Your task to perform on an android device: toggle notification dots Image 0: 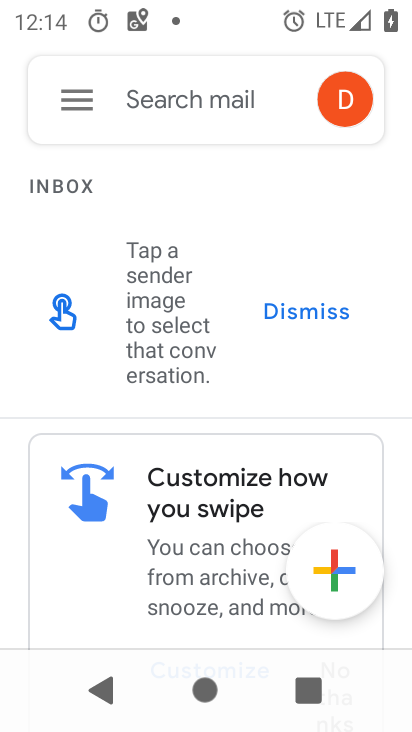
Step 0: press home button
Your task to perform on an android device: toggle notification dots Image 1: 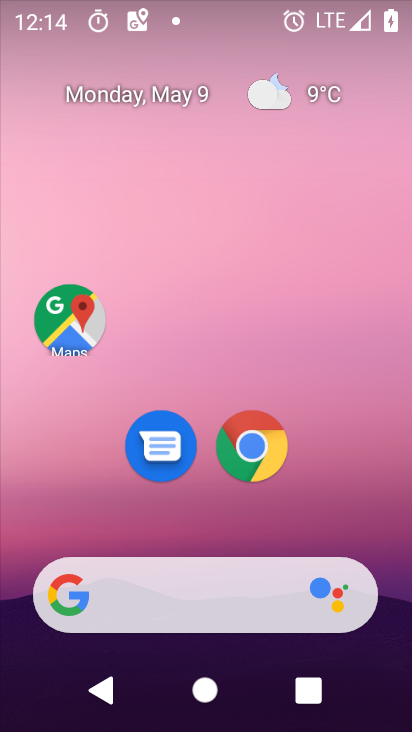
Step 1: drag from (376, 509) to (375, 3)
Your task to perform on an android device: toggle notification dots Image 2: 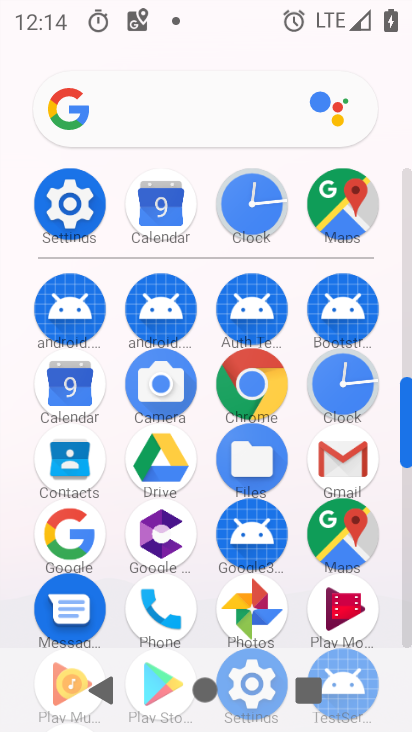
Step 2: click (76, 218)
Your task to perform on an android device: toggle notification dots Image 3: 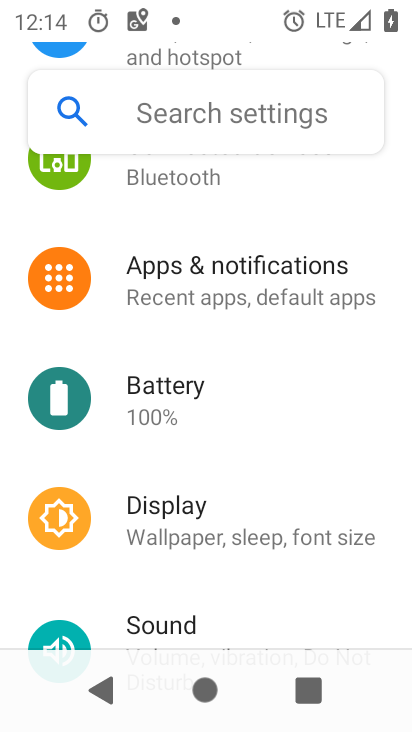
Step 3: click (254, 295)
Your task to perform on an android device: toggle notification dots Image 4: 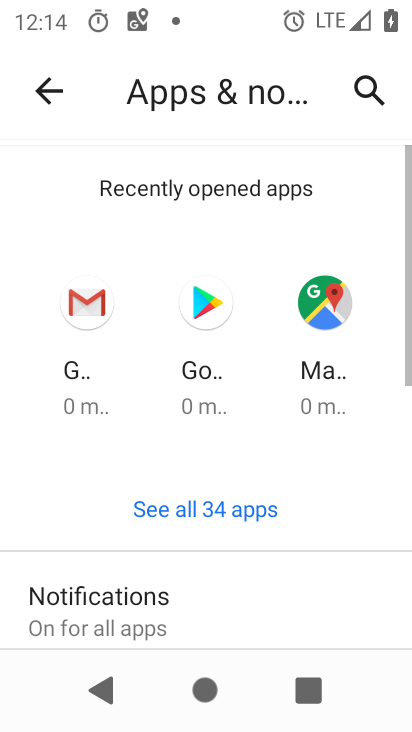
Step 4: drag from (239, 542) to (242, 164)
Your task to perform on an android device: toggle notification dots Image 5: 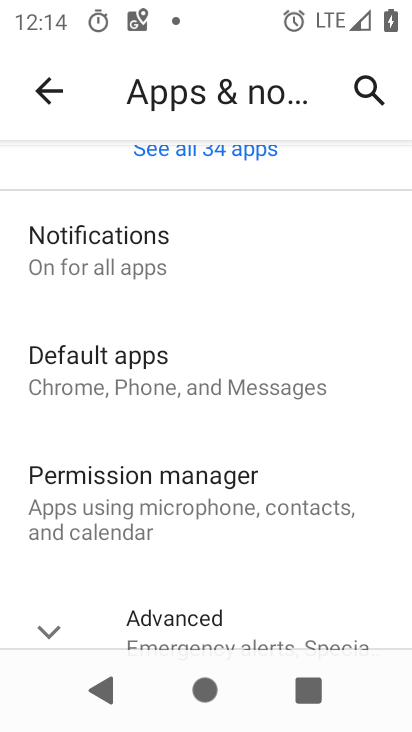
Step 5: click (107, 260)
Your task to perform on an android device: toggle notification dots Image 6: 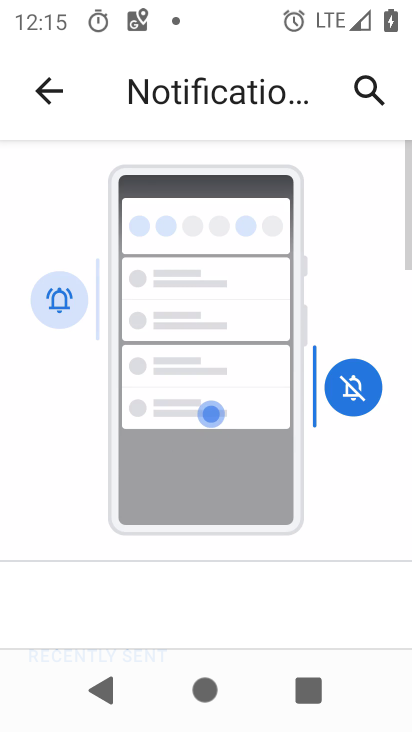
Step 6: drag from (297, 531) to (278, 49)
Your task to perform on an android device: toggle notification dots Image 7: 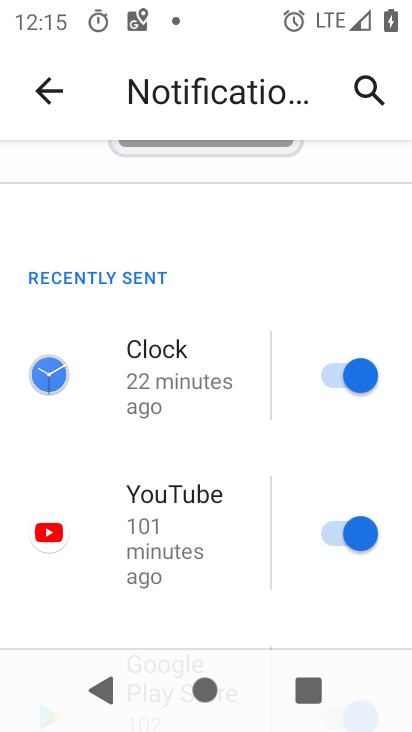
Step 7: drag from (92, 542) to (106, 150)
Your task to perform on an android device: toggle notification dots Image 8: 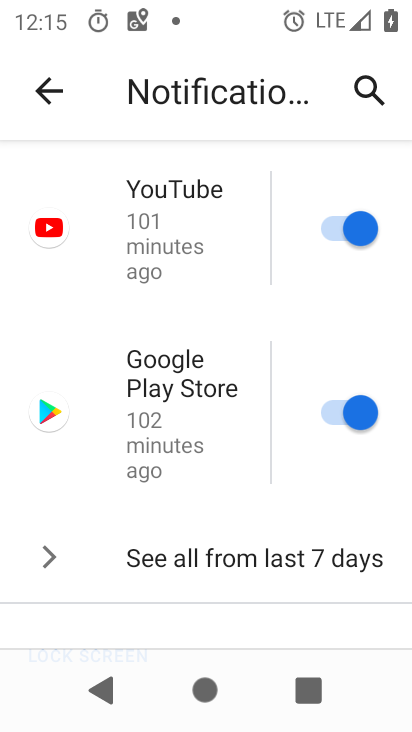
Step 8: drag from (73, 545) to (96, 200)
Your task to perform on an android device: toggle notification dots Image 9: 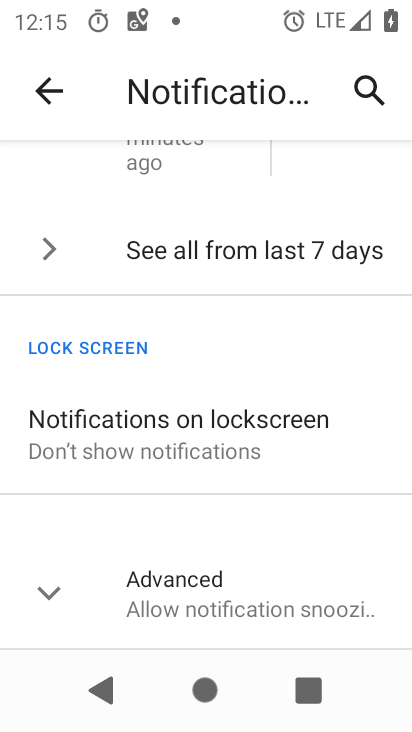
Step 9: click (60, 582)
Your task to perform on an android device: toggle notification dots Image 10: 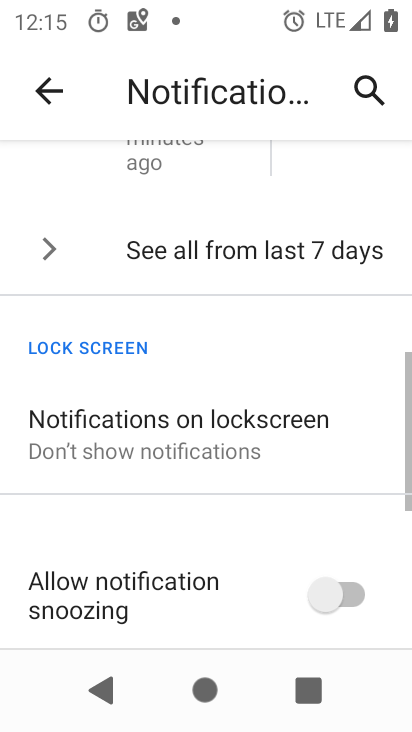
Step 10: drag from (166, 552) to (170, 125)
Your task to perform on an android device: toggle notification dots Image 11: 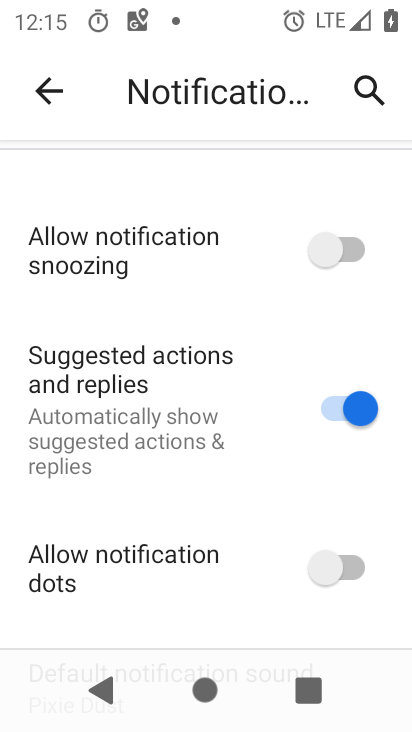
Step 11: click (336, 567)
Your task to perform on an android device: toggle notification dots Image 12: 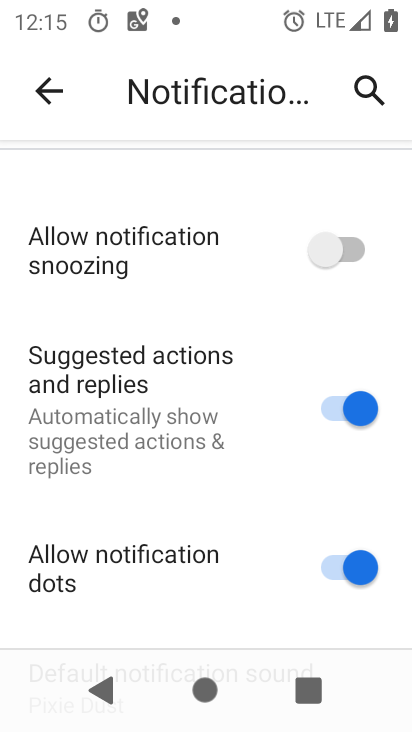
Step 12: task complete